Your task to perform on an android device: show emergency info Image 0: 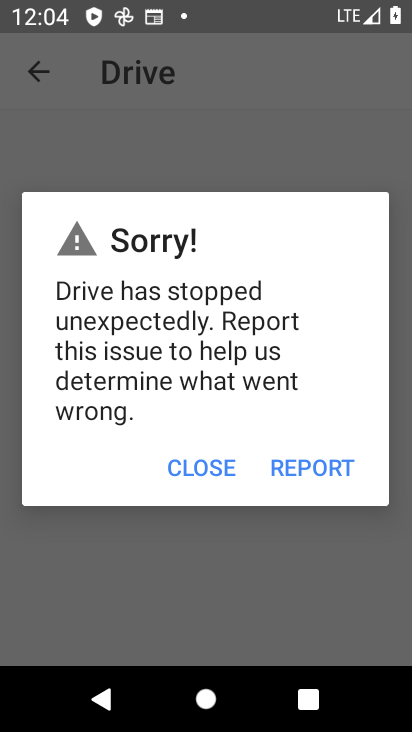
Step 0: press home button
Your task to perform on an android device: show emergency info Image 1: 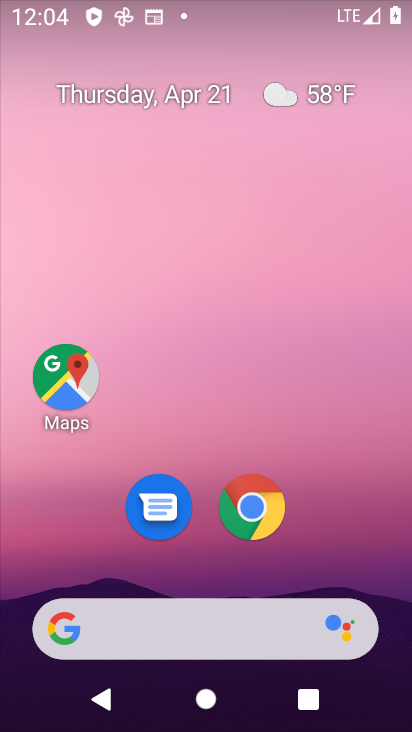
Step 1: drag from (335, 554) to (353, 111)
Your task to perform on an android device: show emergency info Image 2: 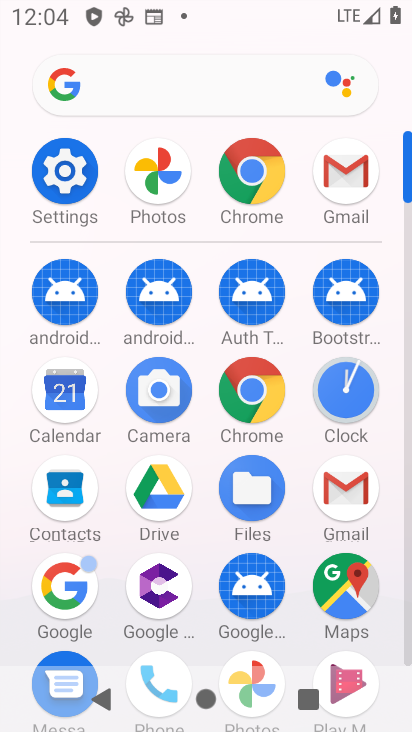
Step 2: click (57, 195)
Your task to perform on an android device: show emergency info Image 3: 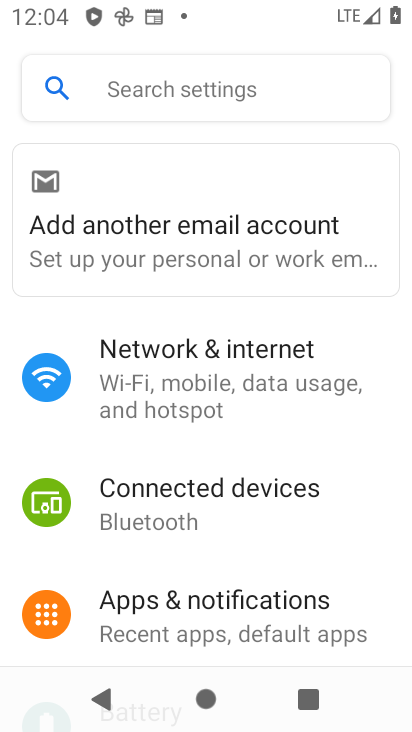
Step 3: drag from (359, 466) to (378, 280)
Your task to perform on an android device: show emergency info Image 4: 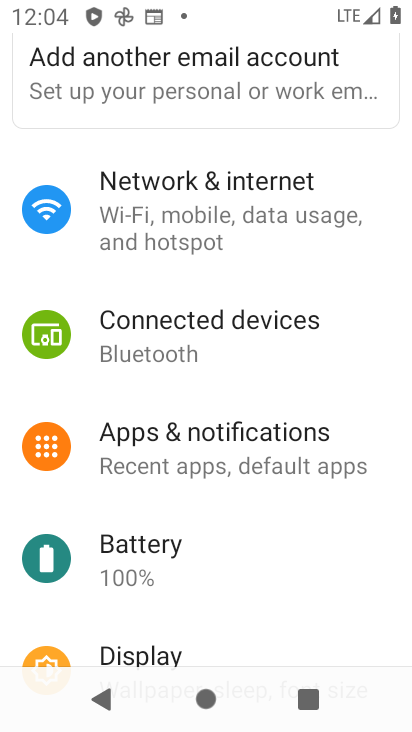
Step 4: drag from (360, 569) to (370, 301)
Your task to perform on an android device: show emergency info Image 5: 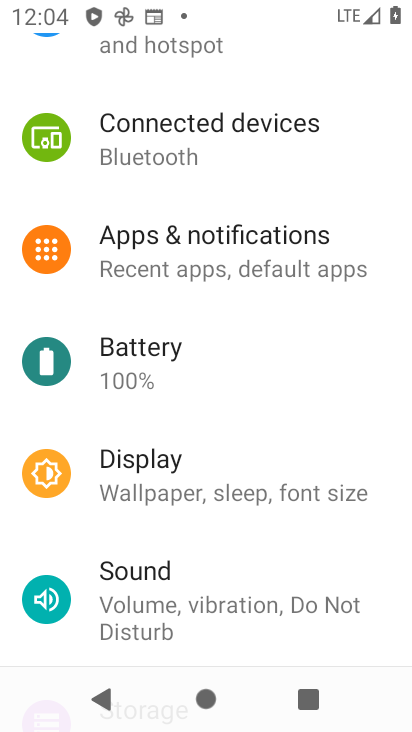
Step 5: drag from (366, 642) to (367, 356)
Your task to perform on an android device: show emergency info Image 6: 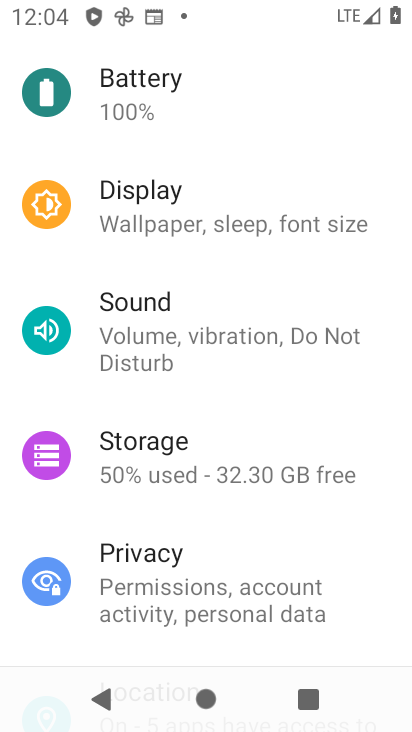
Step 6: drag from (381, 596) to (384, 393)
Your task to perform on an android device: show emergency info Image 7: 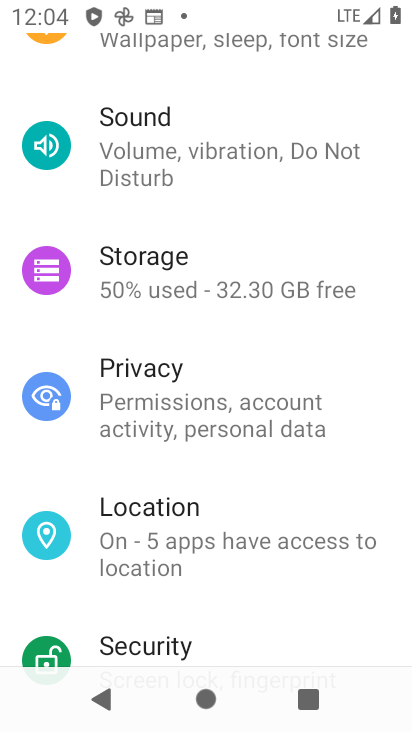
Step 7: drag from (349, 591) to (362, 341)
Your task to perform on an android device: show emergency info Image 8: 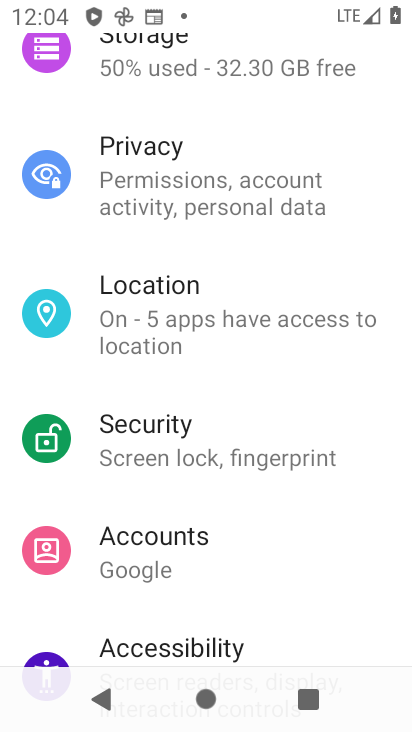
Step 8: drag from (356, 601) to (355, 385)
Your task to perform on an android device: show emergency info Image 9: 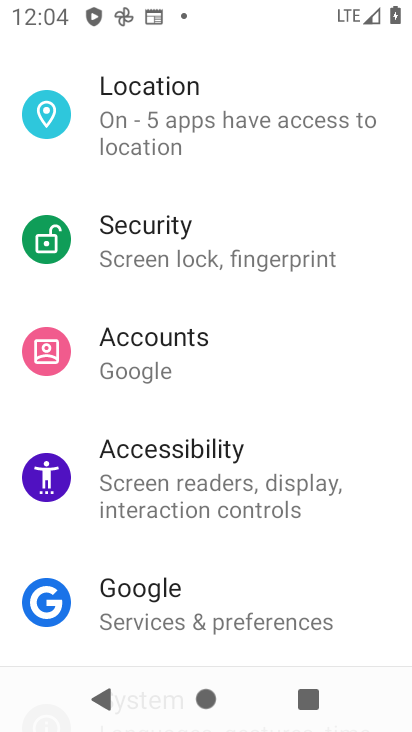
Step 9: drag from (312, 568) to (333, 345)
Your task to perform on an android device: show emergency info Image 10: 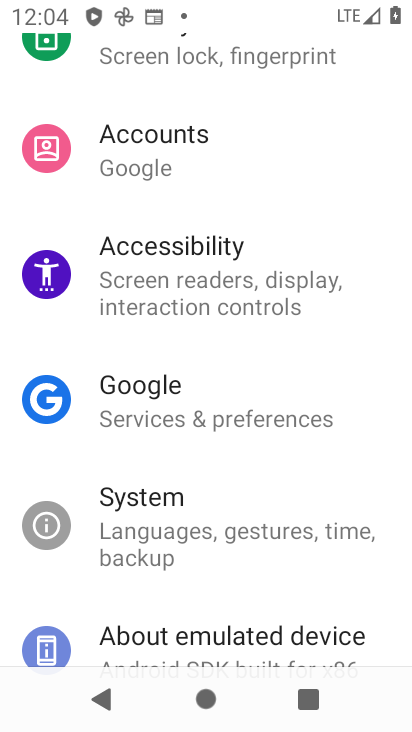
Step 10: drag from (376, 562) to (379, 401)
Your task to perform on an android device: show emergency info Image 11: 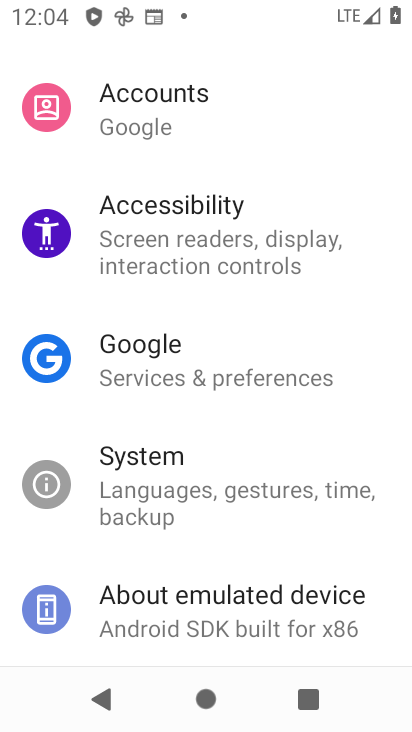
Step 11: click (283, 611)
Your task to perform on an android device: show emergency info Image 12: 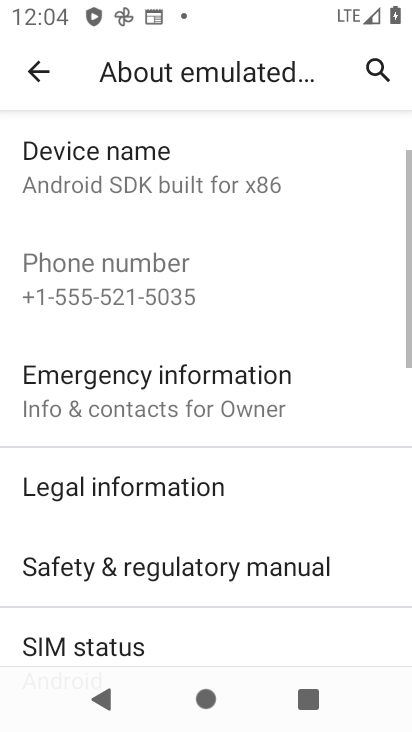
Step 12: click (261, 386)
Your task to perform on an android device: show emergency info Image 13: 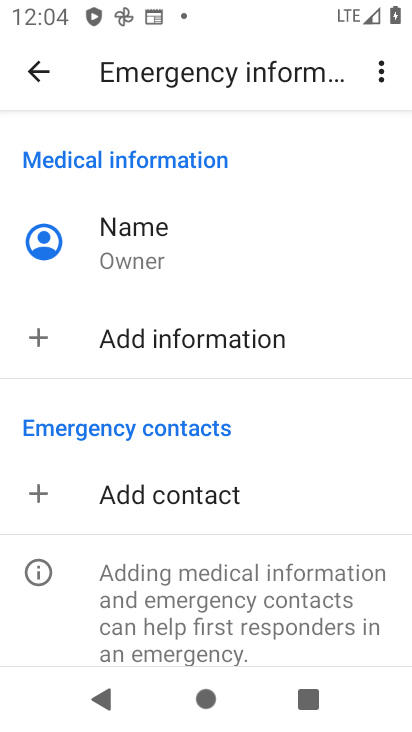
Step 13: task complete